Your task to perform on an android device: See recent photos Image 0: 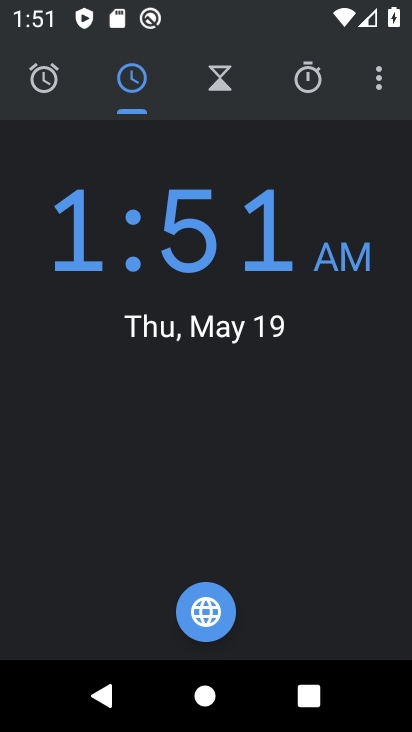
Step 0: press home button
Your task to perform on an android device: See recent photos Image 1: 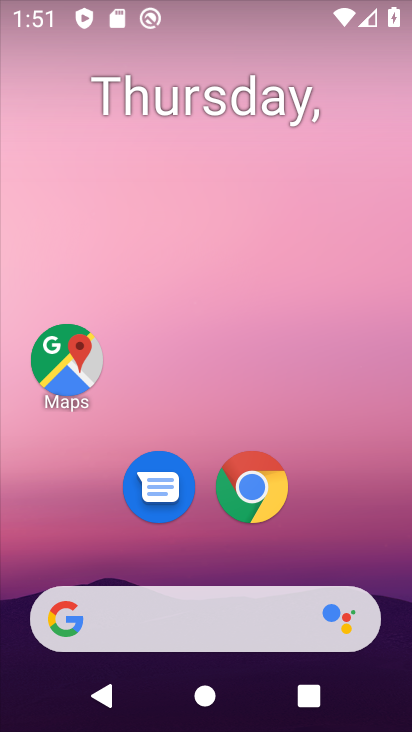
Step 1: drag from (200, 559) to (220, 5)
Your task to perform on an android device: See recent photos Image 2: 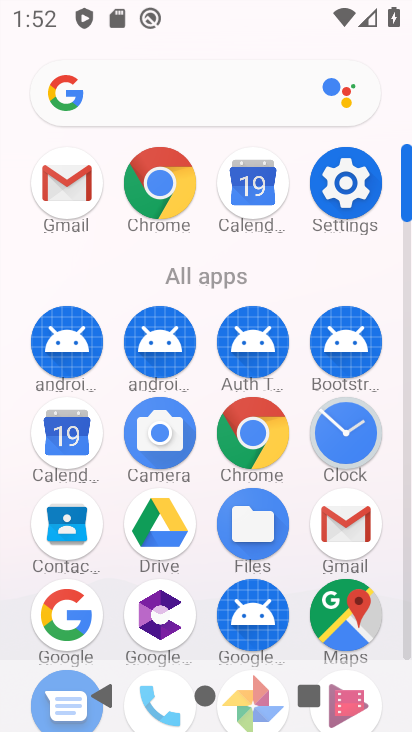
Step 2: drag from (201, 568) to (302, 163)
Your task to perform on an android device: See recent photos Image 3: 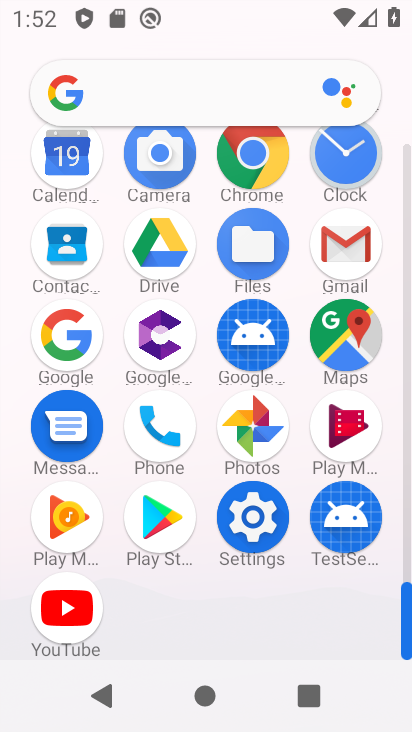
Step 3: click (260, 423)
Your task to perform on an android device: See recent photos Image 4: 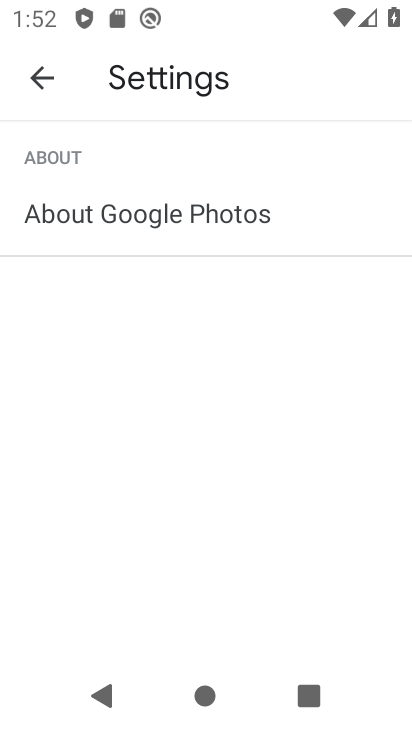
Step 4: click (37, 75)
Your task to perform on an android device: See recent photos Image 5: 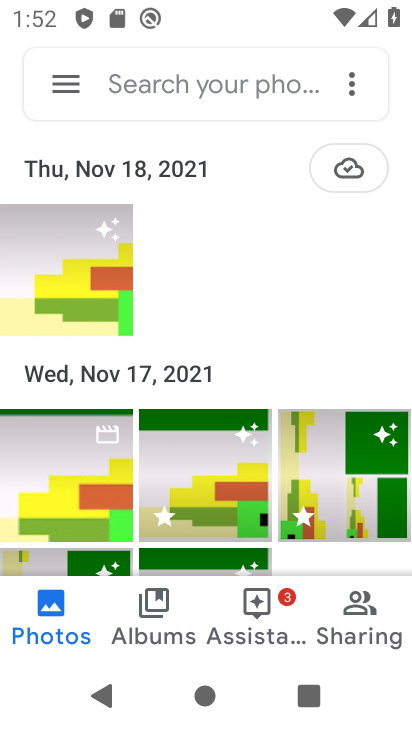
Step 5: task complete